Your task to perform on an android device: Open wifi settings Image 0: 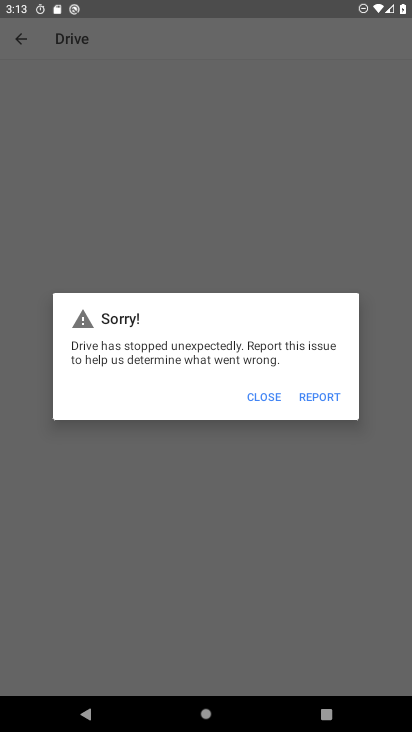
Step 0: press home button
Your task to perform on an android device: Open wifi settings Image 1: 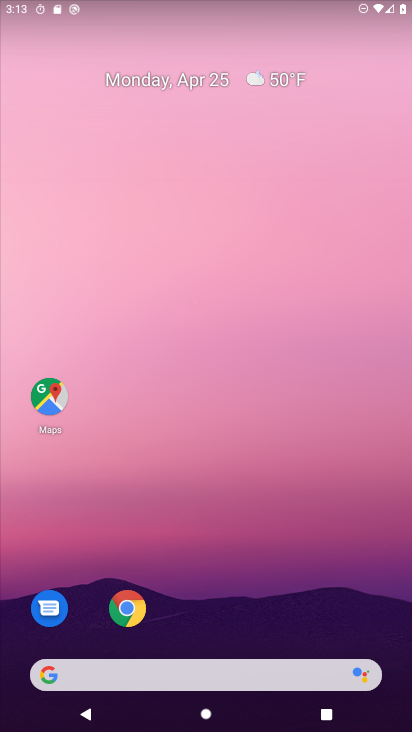
Step 1: drag from (215, 573) to (259, 192)
Your task to perform on an android device: Open wifi settings Image 2: 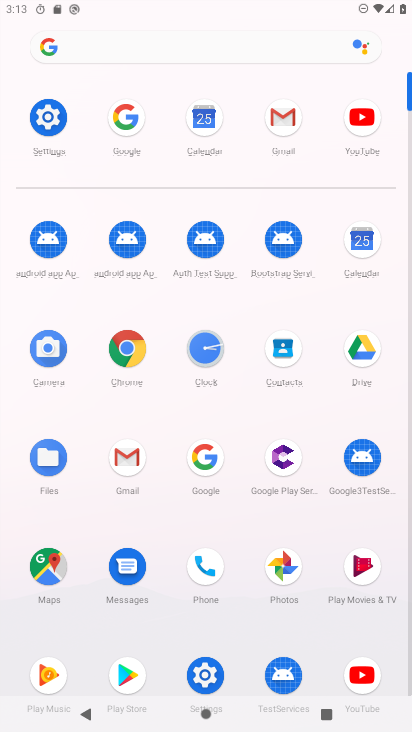
Step 2: click (42, 132)
Your task to perform on an android device: Open wifi settings Image 3: 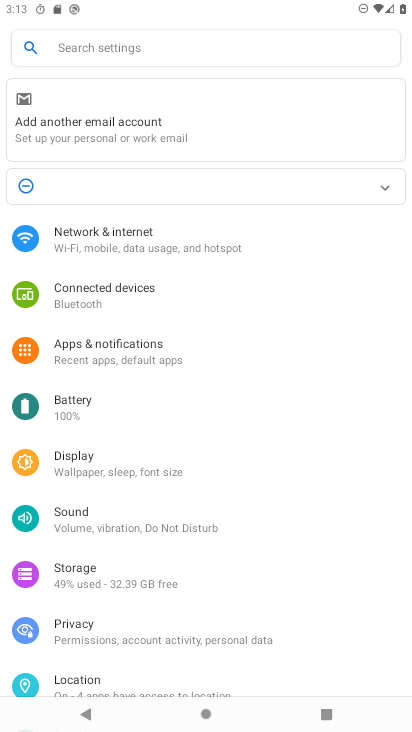
Step 3: click (109, 237)
Your task to perform on an android device: Open wifi settings Image 4: 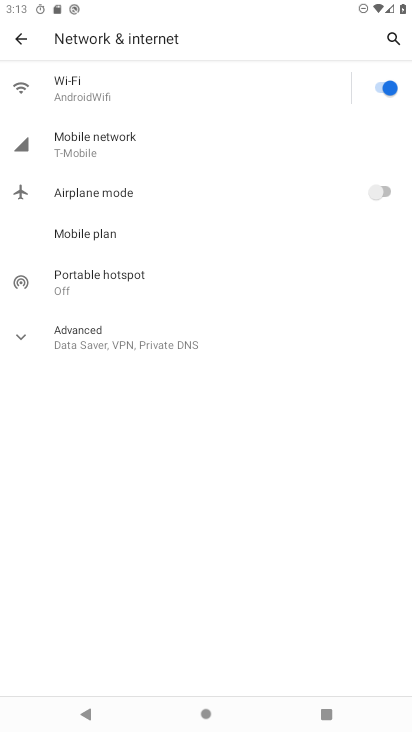
Step 4: click (106, 95)
Your task to perform on an android device: Open wifi settings Image 5: 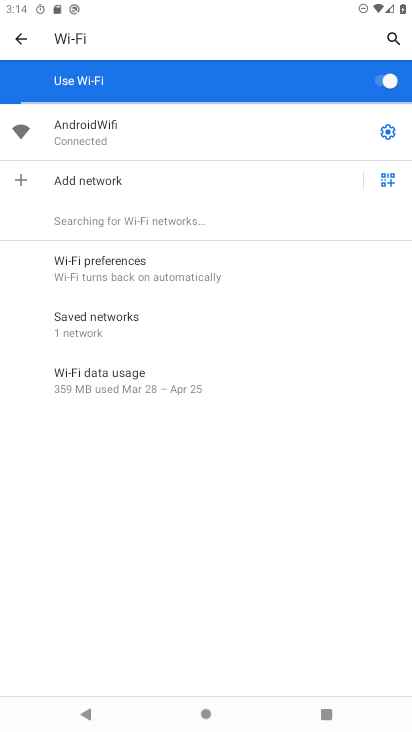
Step 5: task complete